Your task to perform on an android device: turn off notifications settings in the gmail app Image 0: 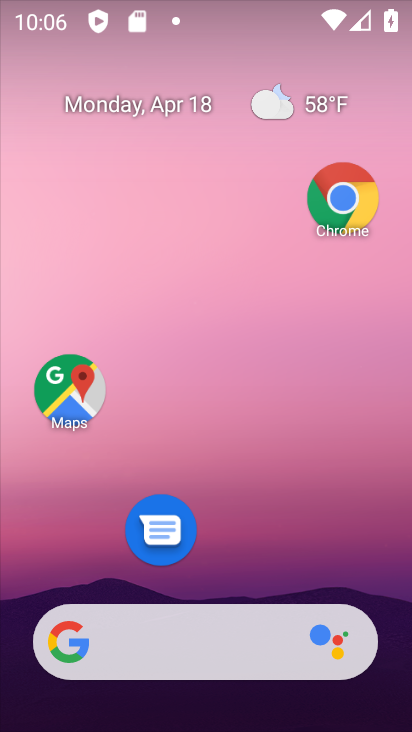
Step 0: drag from (180, 604) to (226, 149)
Your task to perform on an android device: turn off notifications settings in the gmail app Image 1: 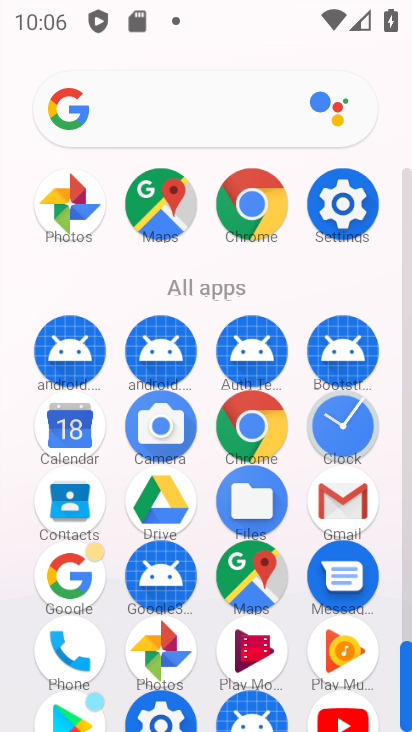
Step 1: click (344, 500)
Your task to perform on an android device: turn off notifications settings in the gmail app Image 2: 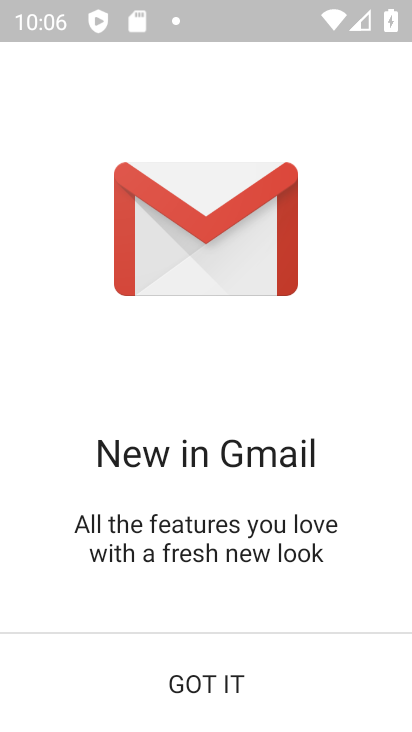
Step 2: click (206, 682)
Your task to perform on an android device: turn off notifications settings in the gmail app Image 3: 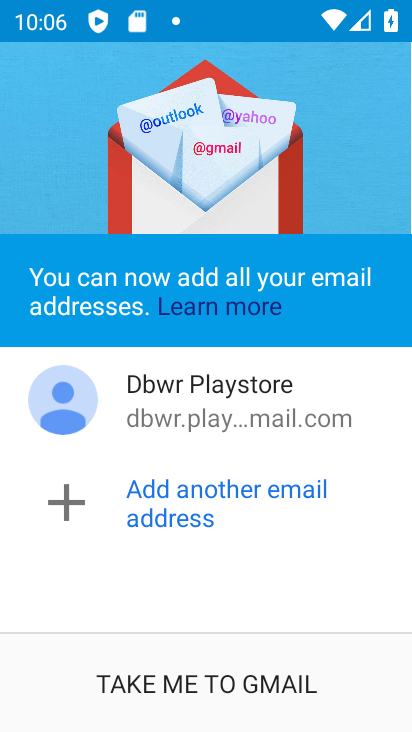
Step 3: click (207, 678)
Your task to perform on an android device: turn off notifications settings in the gmail app Image 4: 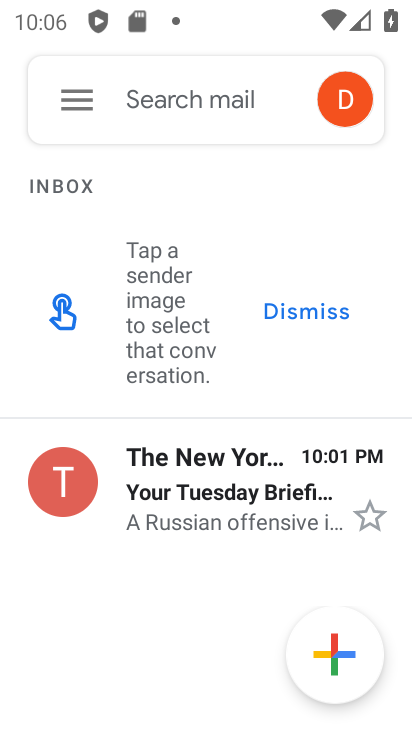
Step 4: click (67, 107)
Your task to perform on an android device: turn off notifications settings in the gmail app Image 5: 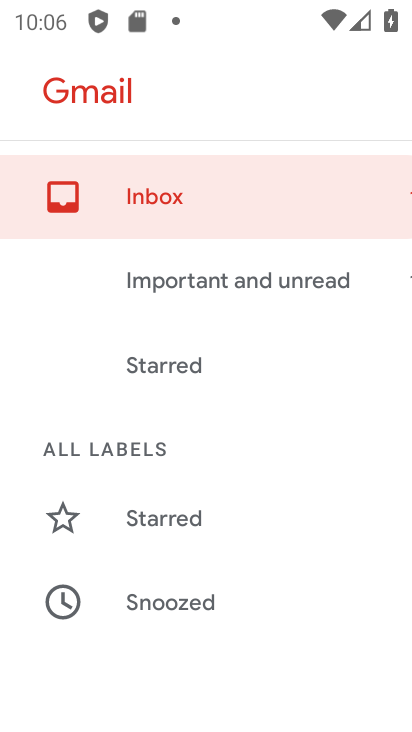
Step 5: drag from (226, 626) to (279, 221)
Your task to perform on an android device: turn off notifications settings in the gmail app Image 6: 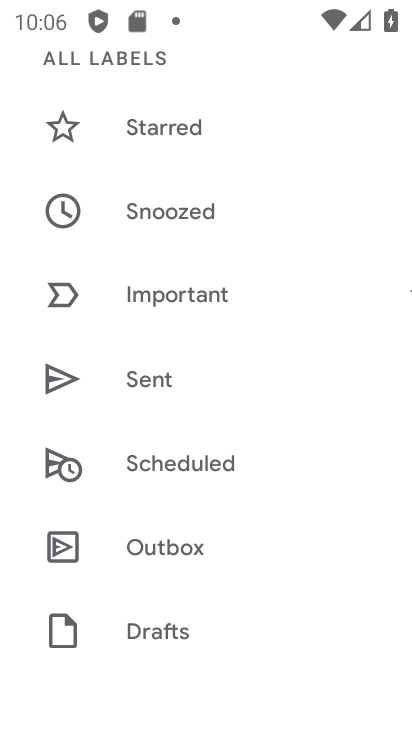
Step 6: drag from (216, 547) to (256, 235)
Your task to perform on an android device: turn off notifications settings in the gmail app Image 7: 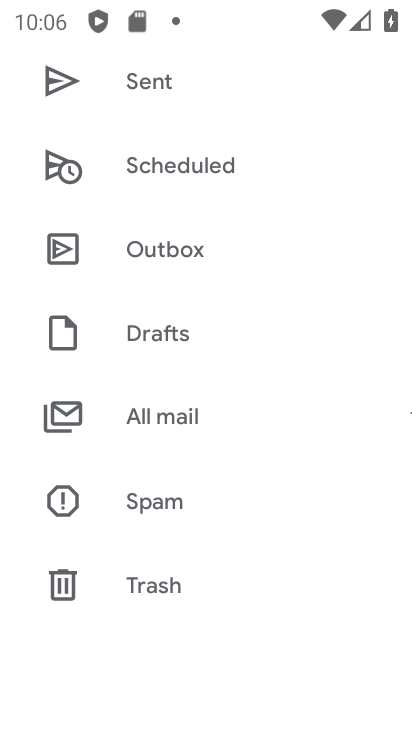
Step 7: drag from (194, 582) to (283, 219)
Your task to perform on an android device: turn off notifications settings in the gmail app Image 8: 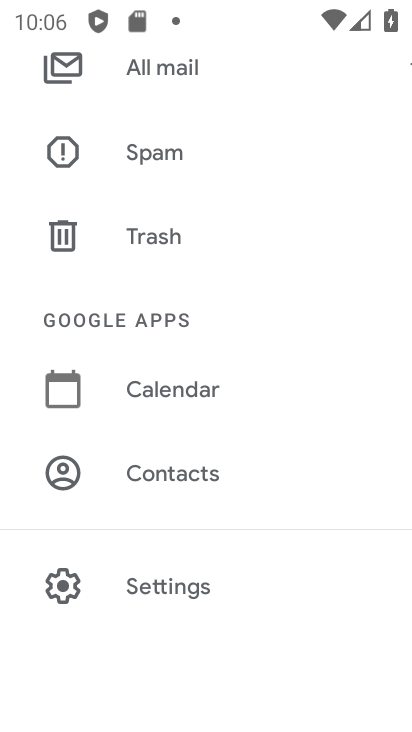
Step 8: click (163, 586)
Your task to perform on an android device: turn off notifications settings in the gmail app Image 9: 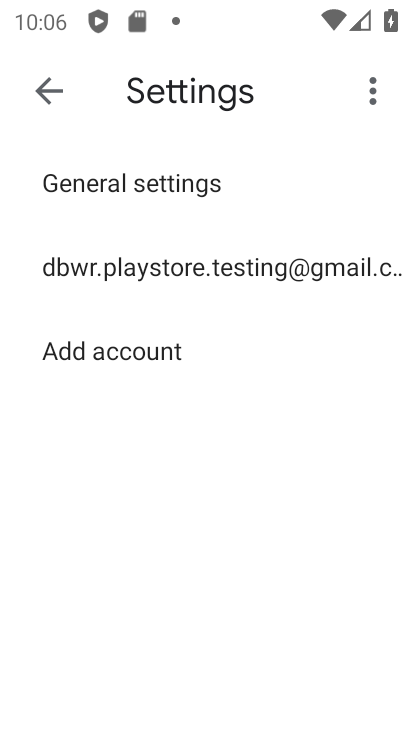
Step 9: click (163, 267)
Your task to perform on an android device: turn off notifications settings in the gmail app Image 10: 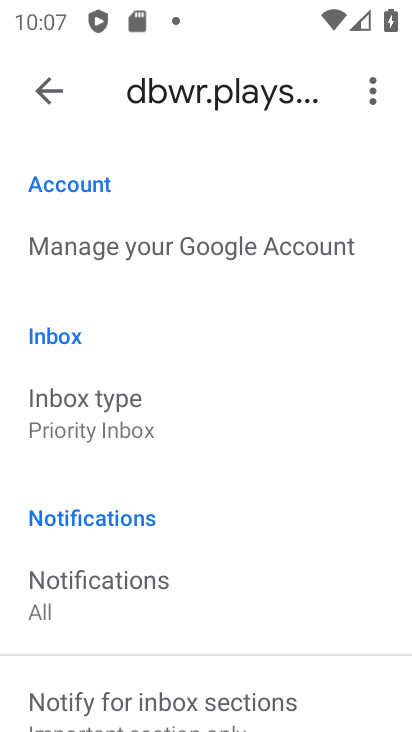
Step 10: drag from (131, 629) to (162, 310)
Your task to perform on an android device: turn off notifications settings in the gmail app Image 11: 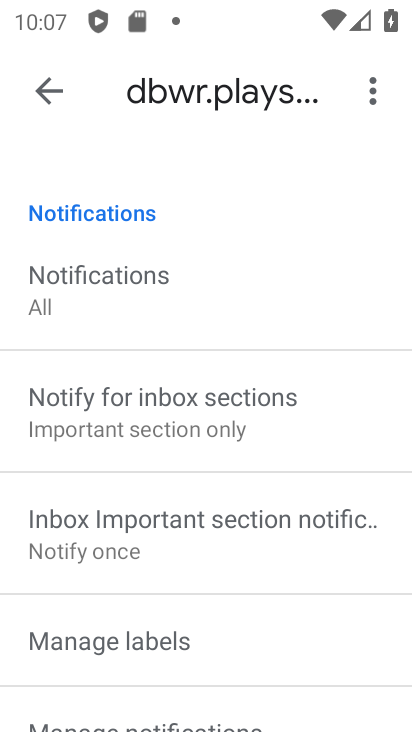
Step 11: drag from (101, 565) to (147, 400)
Your task to perform on an android device: turn off notifications settings in the gmail app Image 12: 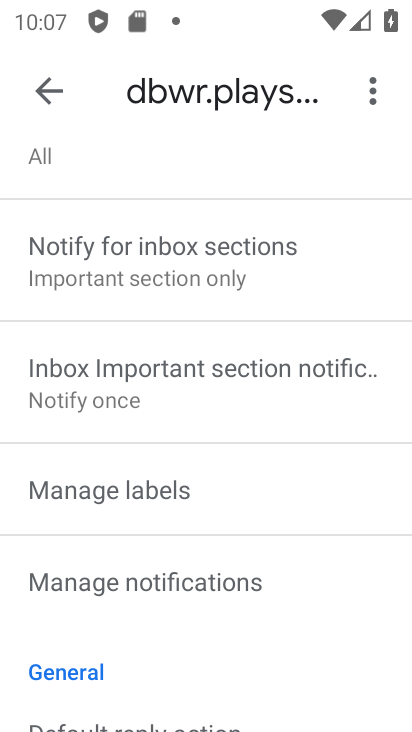
Step 12: click (197, 578)
Your task to perform on an android device: turn off notifications settings in the gmail app Image 13: 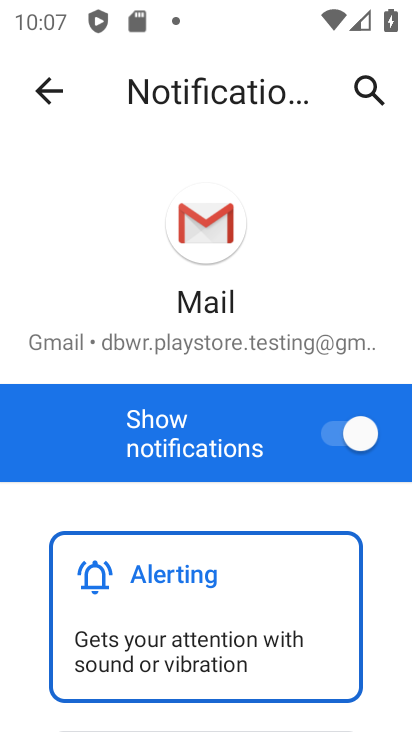
Step 13: click (332, 433)
Your task to perform on an android device: turn off notifications settings in the gmail app Image 14: 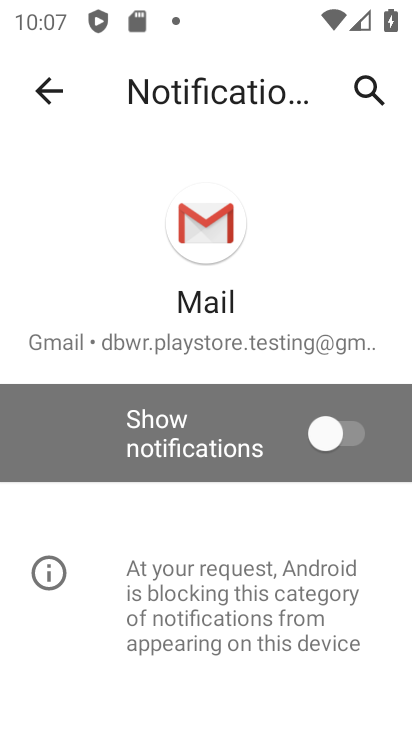
Step 14: task complete